Your task to perform on an android device: Do I have any events today? Image 0: 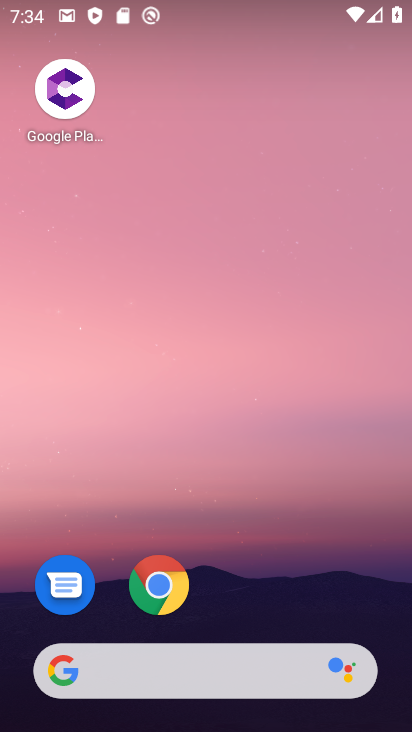
Step 0: drag from (245, 560) to (252, 11)
Your task to perform on an android device: Do I have any events today? Image 1: 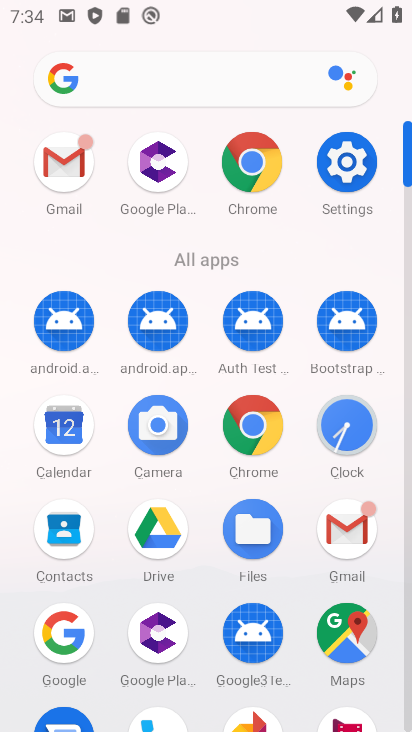
Step 1: click (69, 421)
Your task to perform on an android device: Do I have any events today? Image 2: 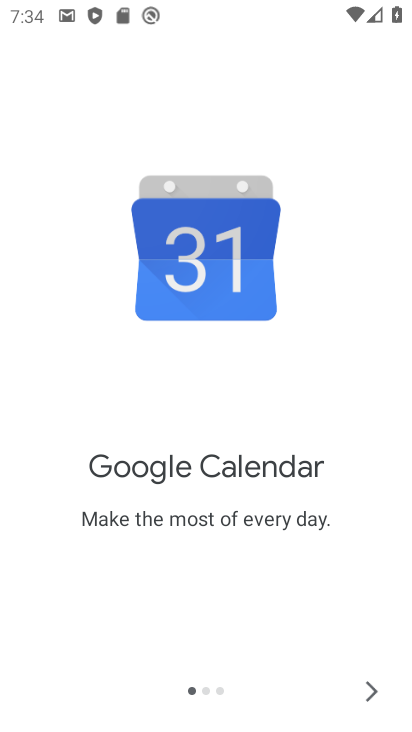
Step 2: click (366, 691)
Your task to perform on an android device: Do I have any events today? Image 3: 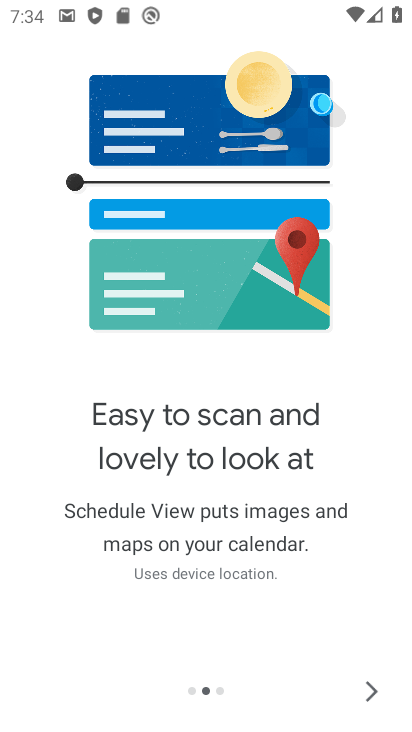
Step 3: click (368, 688)
Your task to perform on an android device: Do I have any events today? Image 4: 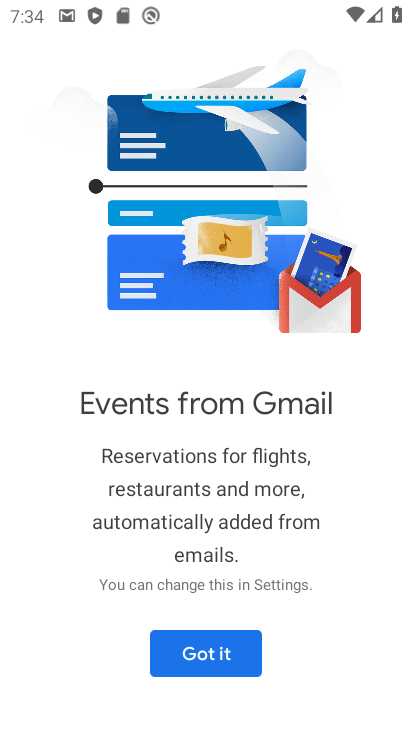
Step 4: click (242, 666)
Your task to perform on an android device: Do I have any events today? Image 5: 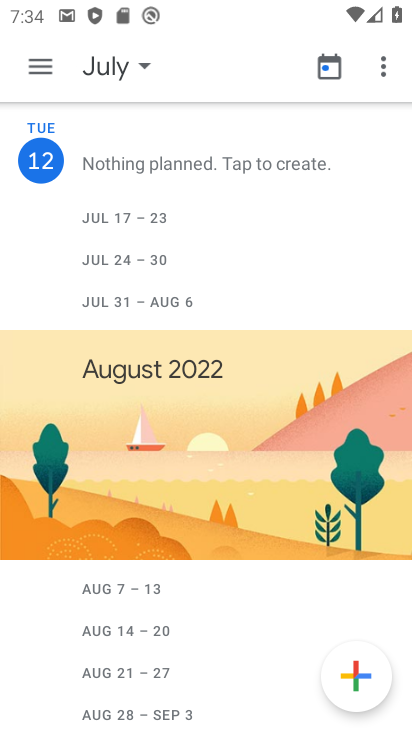
Step 5: click (40, 56)
Your task to perform on an android device: Do I have any events today? Image 6: 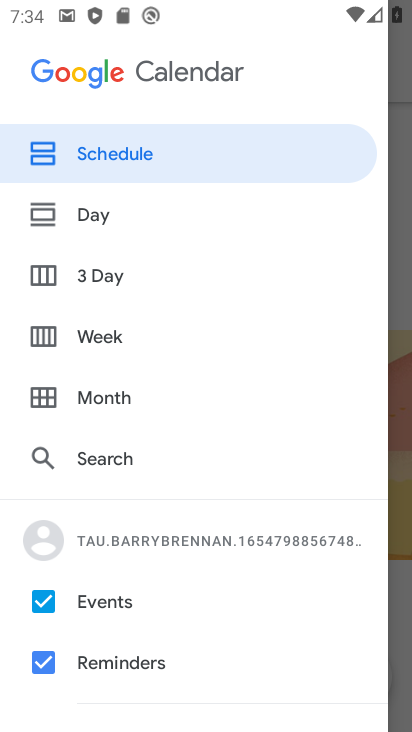
Step 6: click (46, 217)
Your task to perform on an android device: Do I have any events today? Image 7: 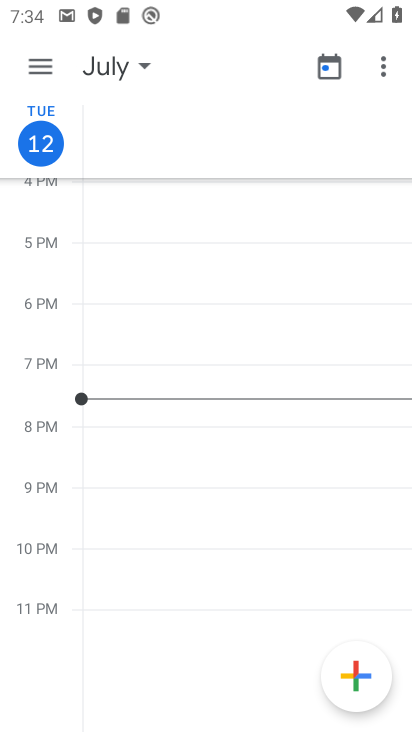
Step 7: task complete